Your task to perform on an android device: See recent photos Image 0: 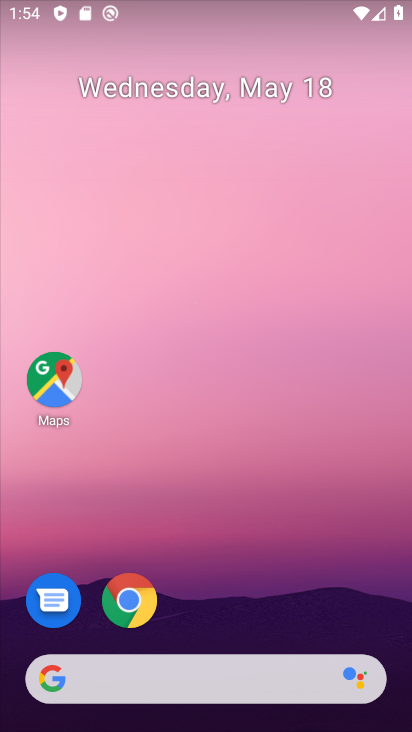
Step 0: drag from (197, 613) to (221, 262)
Your task to perform on an android device: See recent photos Image 1: 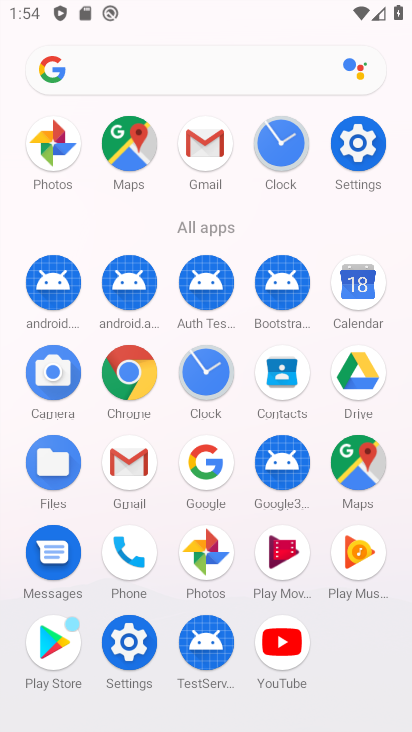
Step 1: click (200, 545)
Your task to perform on an android device: See recent photos Image 2: 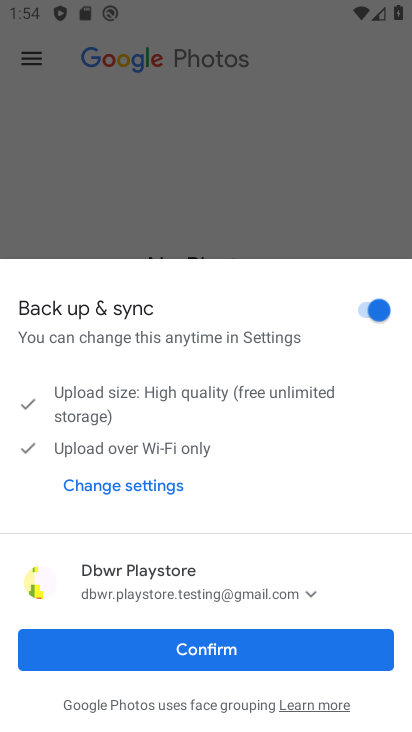
Step 2: click (196, 655)
Your task to perform on an android device: See recent photos Image 3: 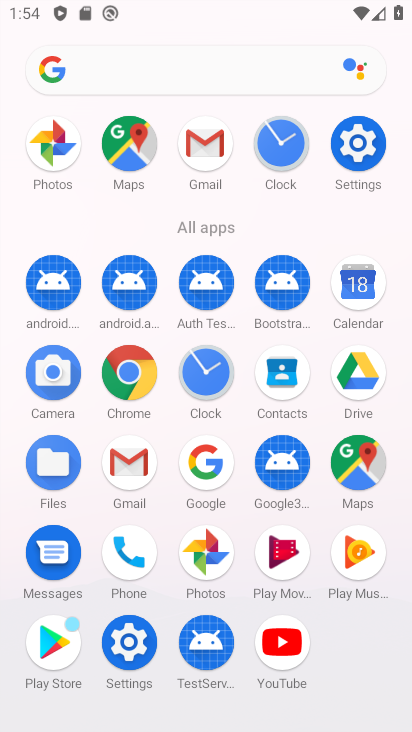
Step 3: click (47, 150)
Your task to perform on an android device: See recent photos Image 4: 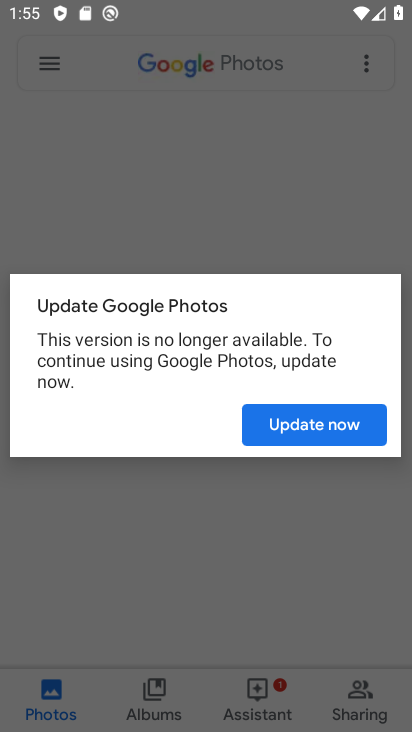
Step 4: click (303, 429)
Your task to perform on an android device: See recent photos Image 5: 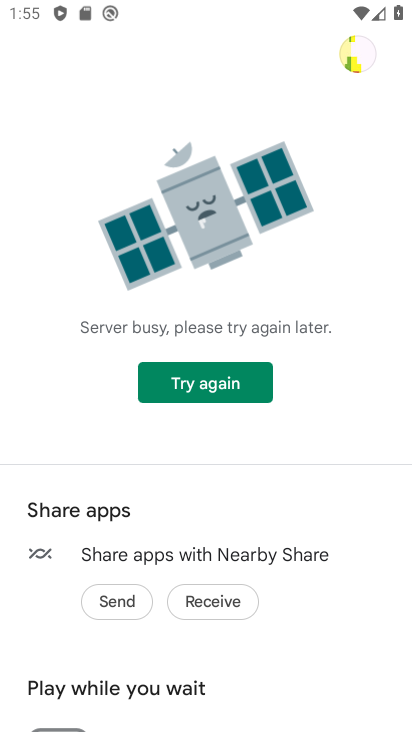
Step 5: press back button
Your task to perform on an android device: See recent photos Image 6: 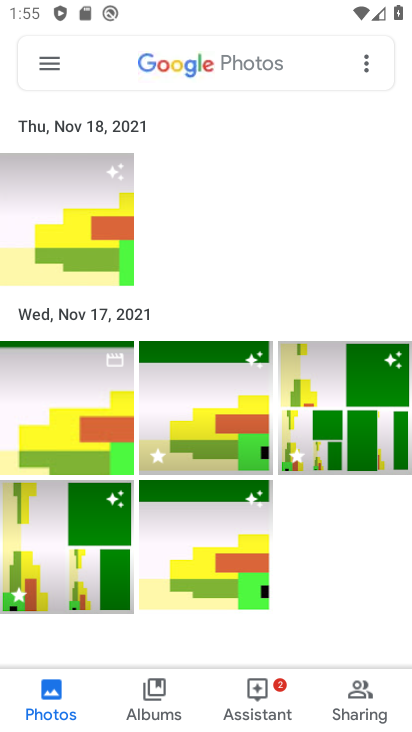
Step 6: click (155, 712)
Your task to perform on an android device: See recent photos Image 7: 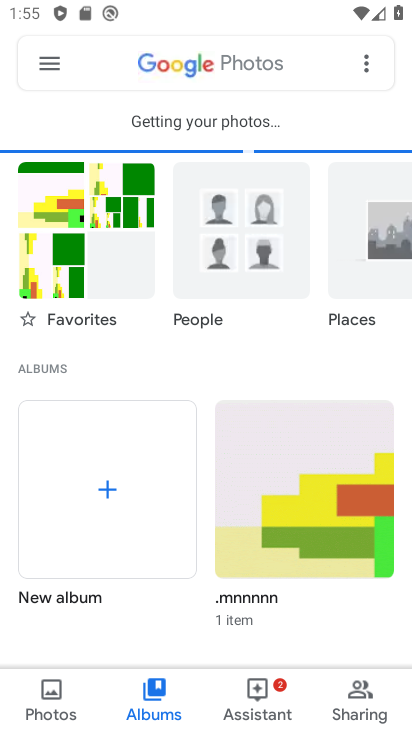
Step 7: task complete